Your task to perform on an android device: search for starred emails in the gmail app Image 0: 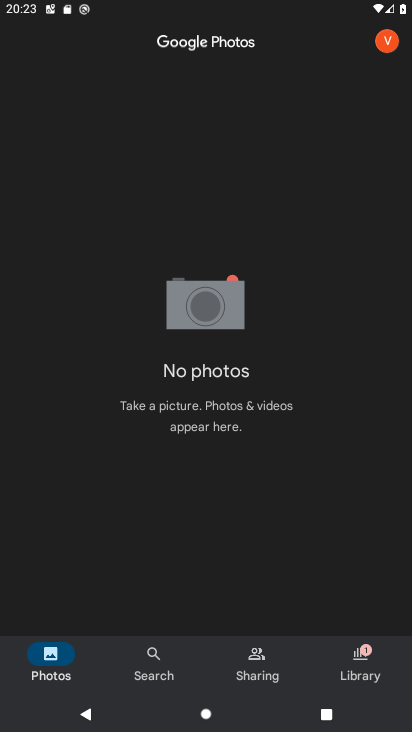
Step 0: press home button
Your task to perform on an android device: search for starred emails in the gmail app Image 1: 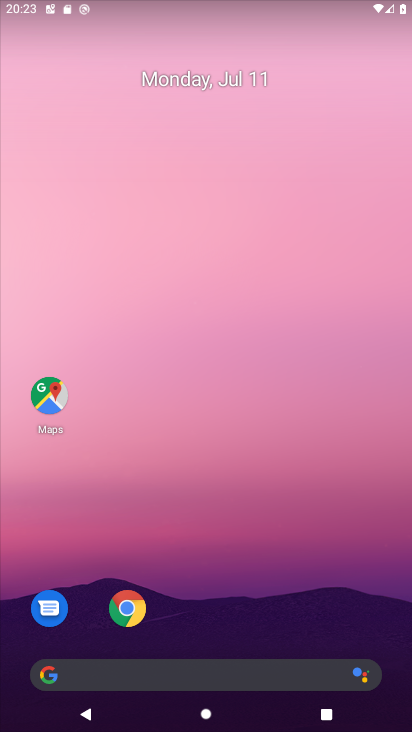
Step 1: drag from (250, 590) to (227, 80)
Your task to perform on an android device: search for starred emails in the gmail app Image 2: 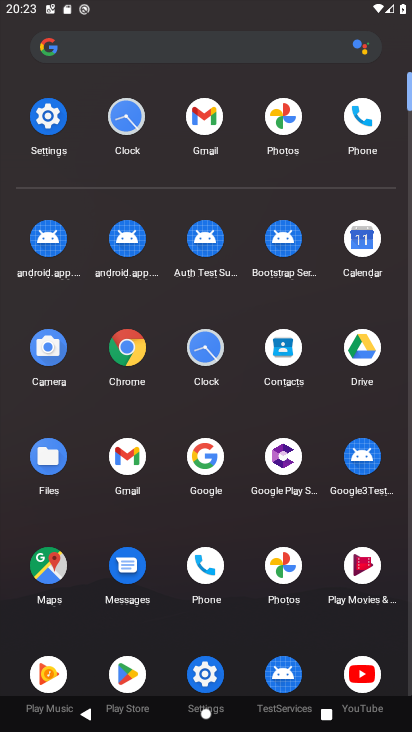
Step 2: click (204, 133)
Your task to perform on an android device: search for starred emails in the gmail app Image 3: 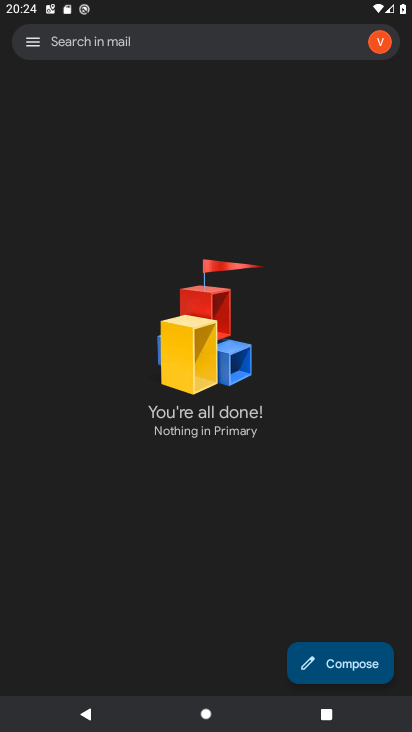
Step 3: click (36, 37)
Your task to perform on an android device: search for starred emails in the gmail app Image 4: 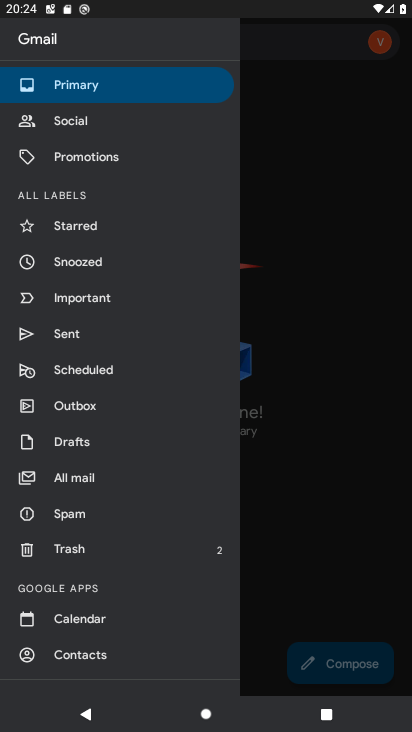
Step 4: click (100, 234)
Your task to perform on an android device: search for starred emails in the gmail app Image 5: 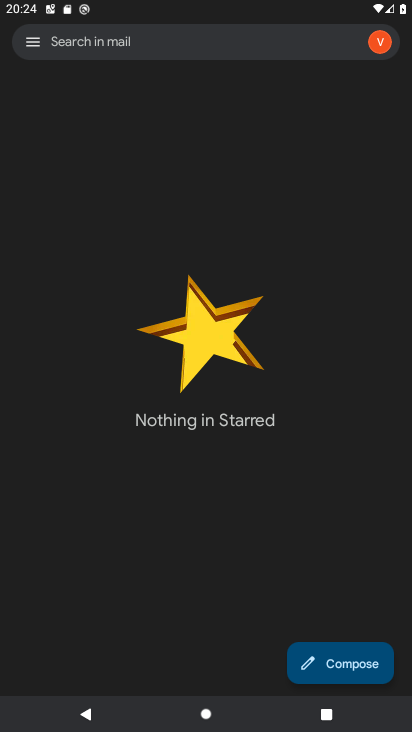
Step 5: task complete